Your task to perform on an android device: What's on my calendar today? Image 0: 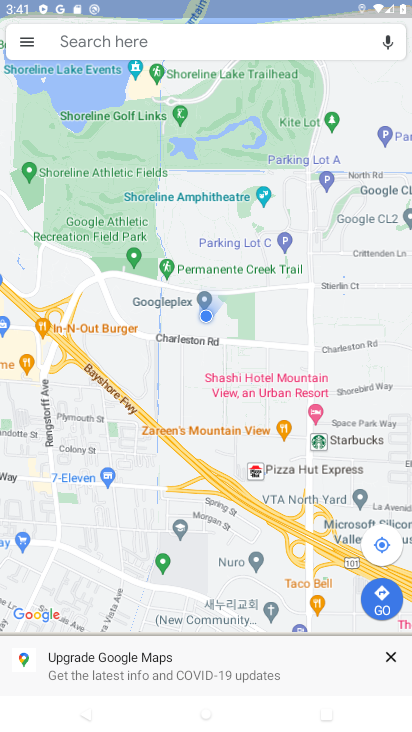
Step 0: task complete